Your task to perform on an android device: What's the weather going to be this weekend? Image 0: 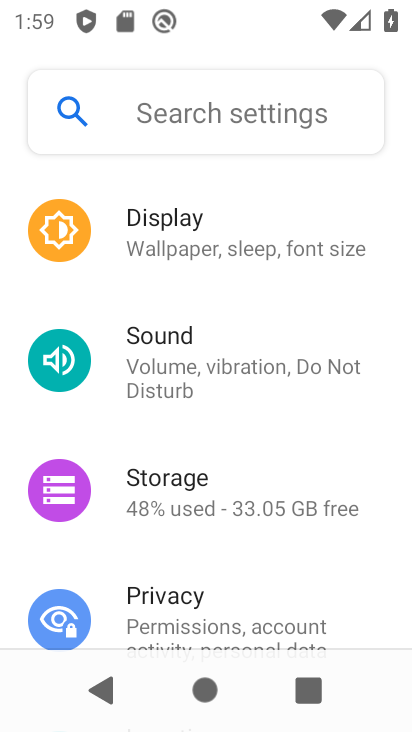
Step 0: press home button
Your task to perform on an android device: What's the weather going to be this weekend? Image 1: 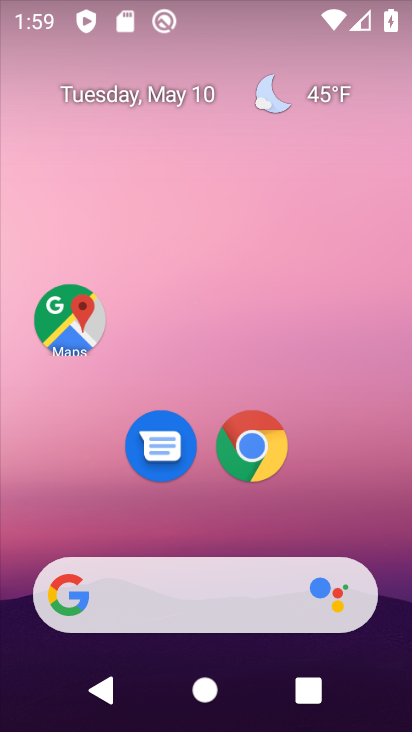
Step 1: drag from (199, 525) to (163, 60)
Your task to perform on an android device: What's the weather going to be this weekend? Image 2: 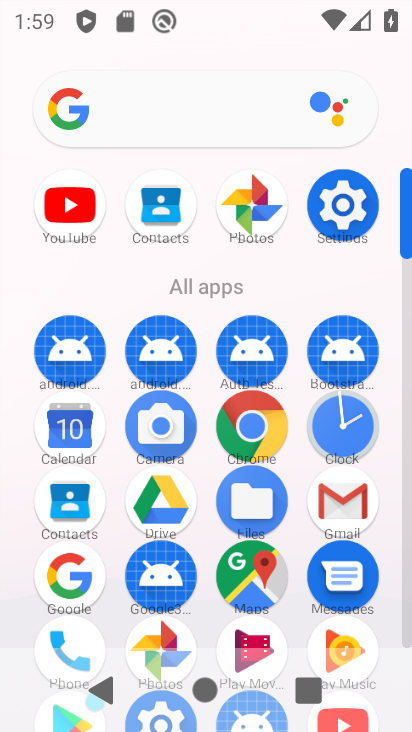
Step 2: click (74, 574)
Your task to perform on an android device: What's the weather going to be this weekend? Image 3: 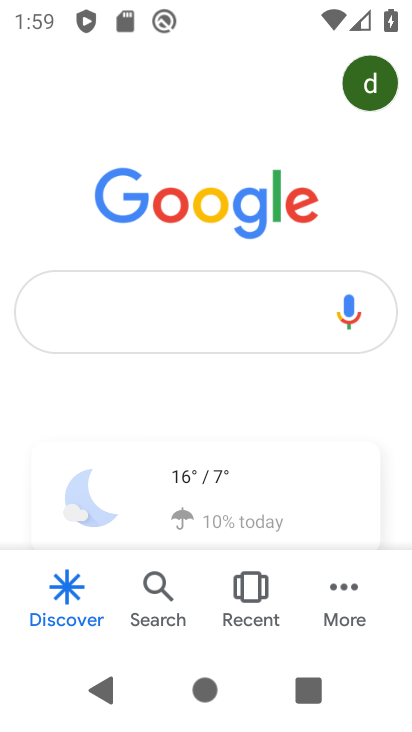
Step 3: click (183, 315)
Your task to perform on an android device: What's the weather going to be this weekend? Image 4: 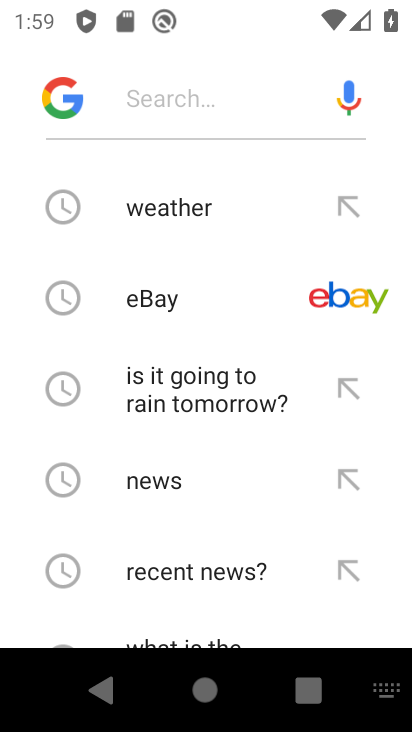
Step 4: type "whats the weather going to be this weekend"
Your task to perform on an android device: What's the weather going to be this weekend? Image 5: 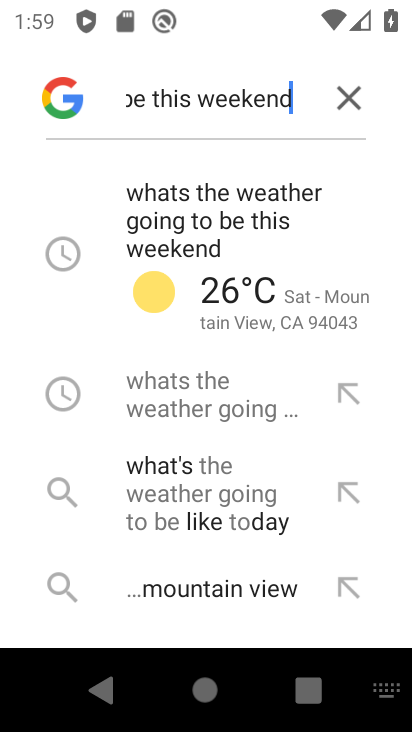
Step 5: click (206, 199)
Your task to perform on an android device: What's the weather going to be this weekend? Image 6: 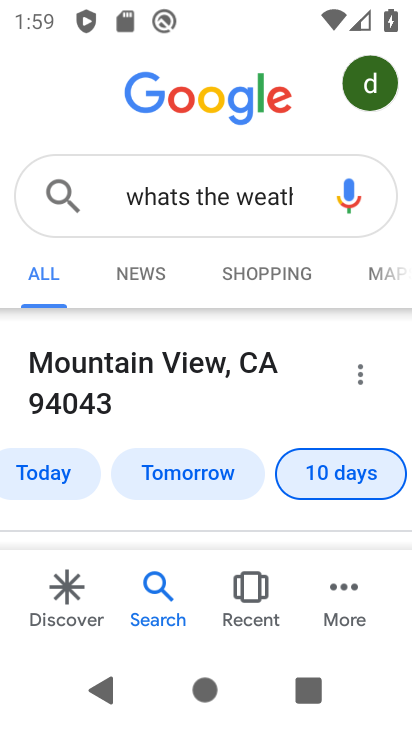
Step 6: task complete